Your task to perform on an android device: Go to settings Image 0: 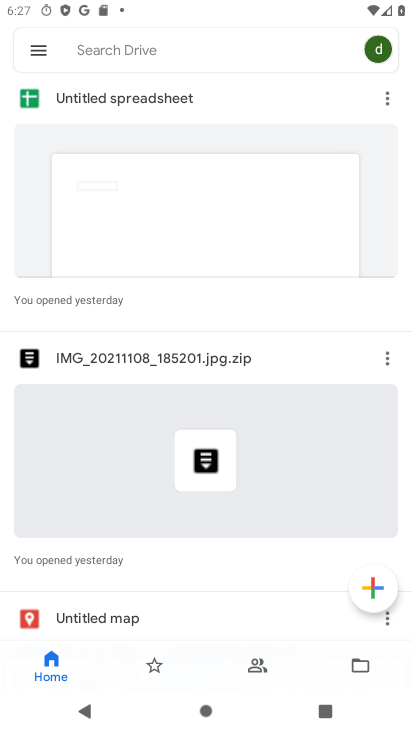
Step 0: press back button
Your task to perform on an android device: Go to settings Image 1: 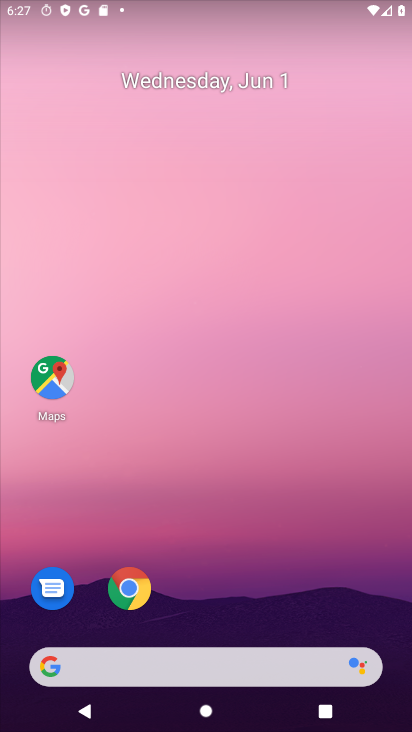
Step 1: click (200, 662)
Your task to perform on an android device: Go to settings Image 2: 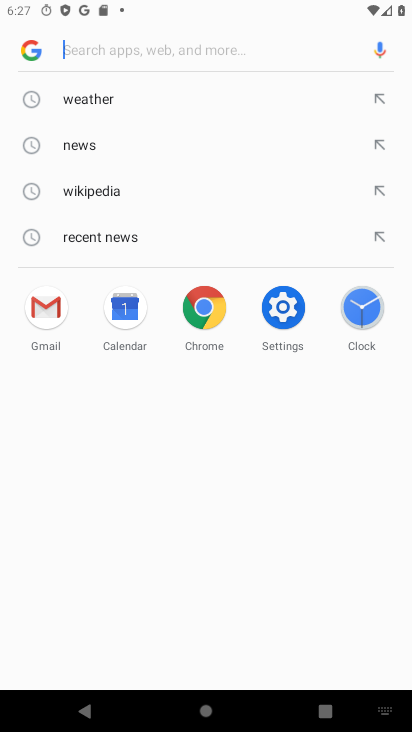
Step 2: click (86, 113)
Your task to perform on an android device: Go to settings Image 3: 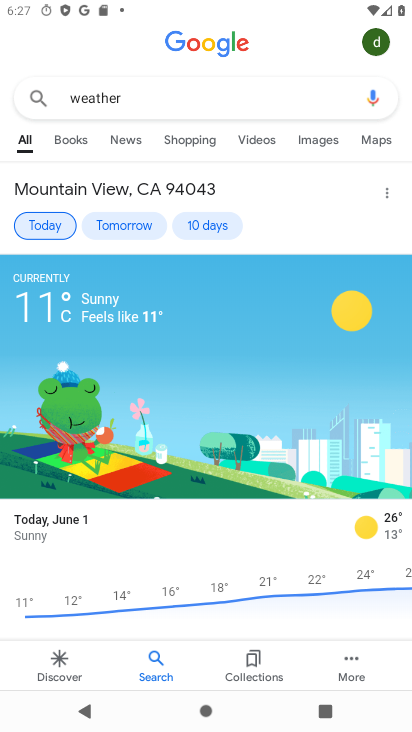
Step 3: task complete